Your task to perform on an android device: What's on the menu at Papa Murphy's? Image 0: 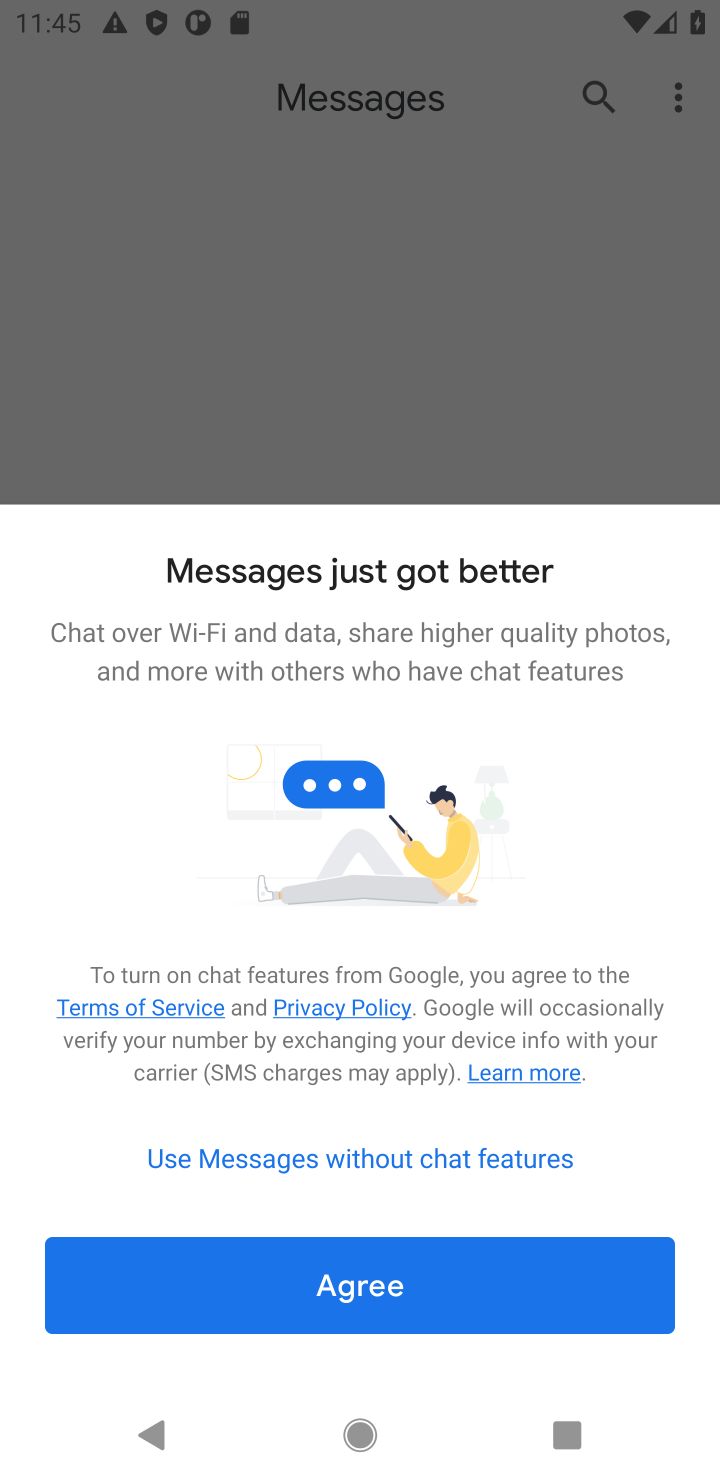
Step 0: press home button
Your task to perform on an android device: What's on the menu at Papa Murphy's? Image 1: 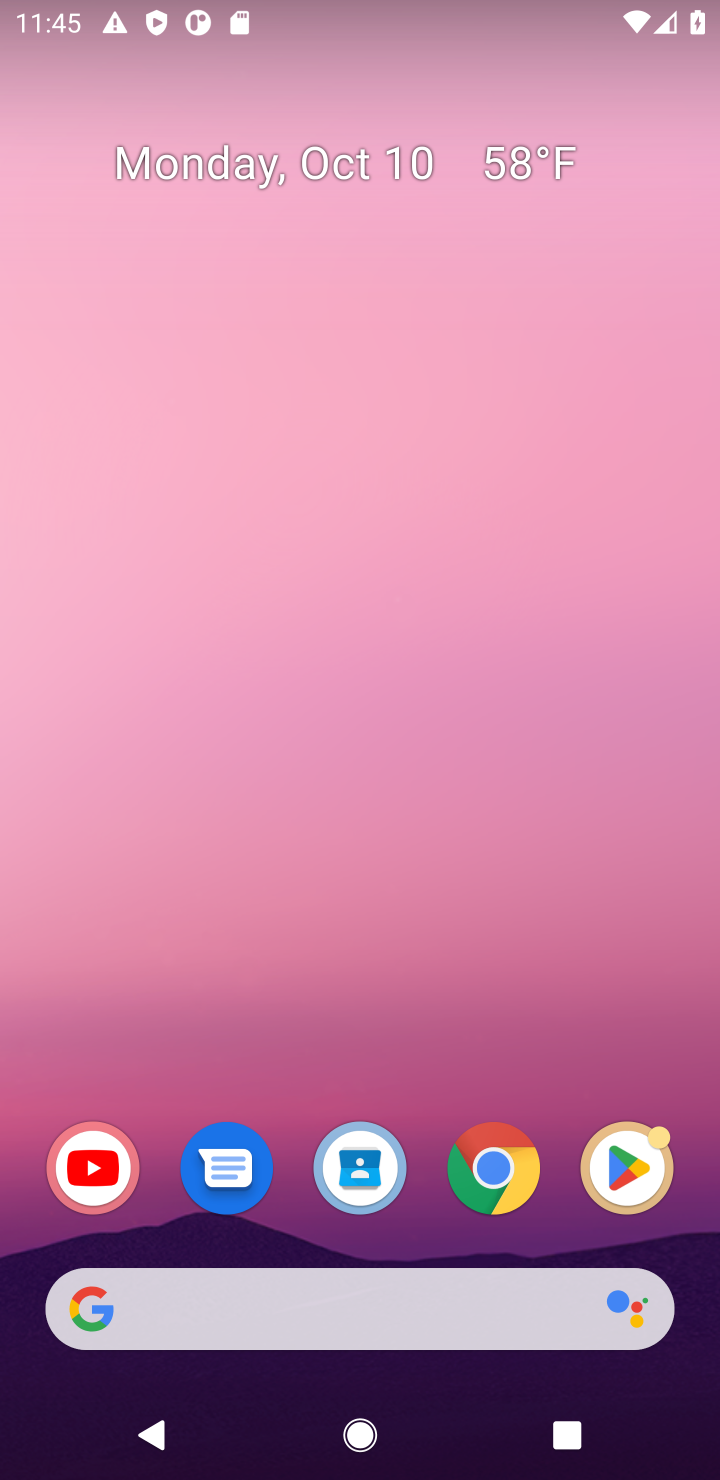
Step 1: click (309, 1293)
Your task to perform on an android device: What's on the menu at Papa Murphy's? Image 2: 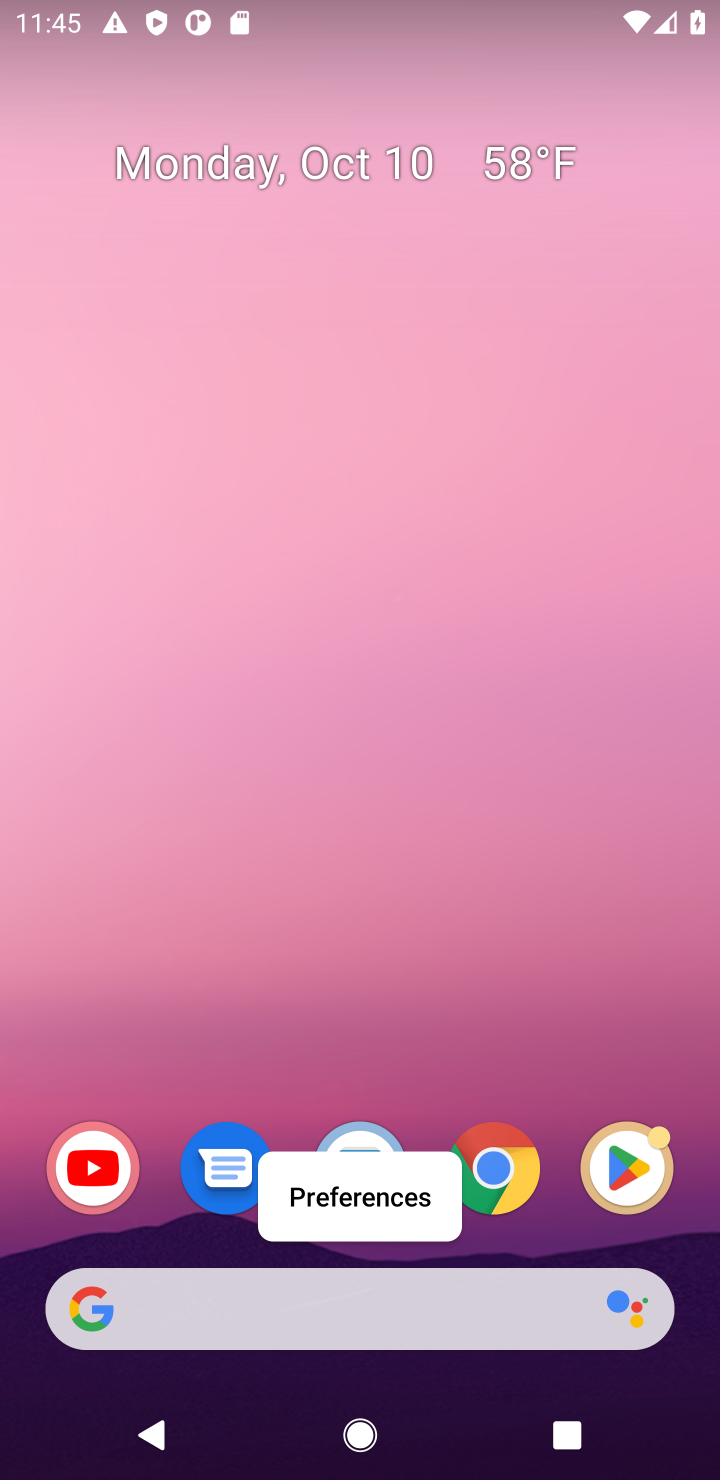
Step 2: click (311, 1293)
Your task to perform on an android device: What's on the menu at Papa Murphy's? Image 3: 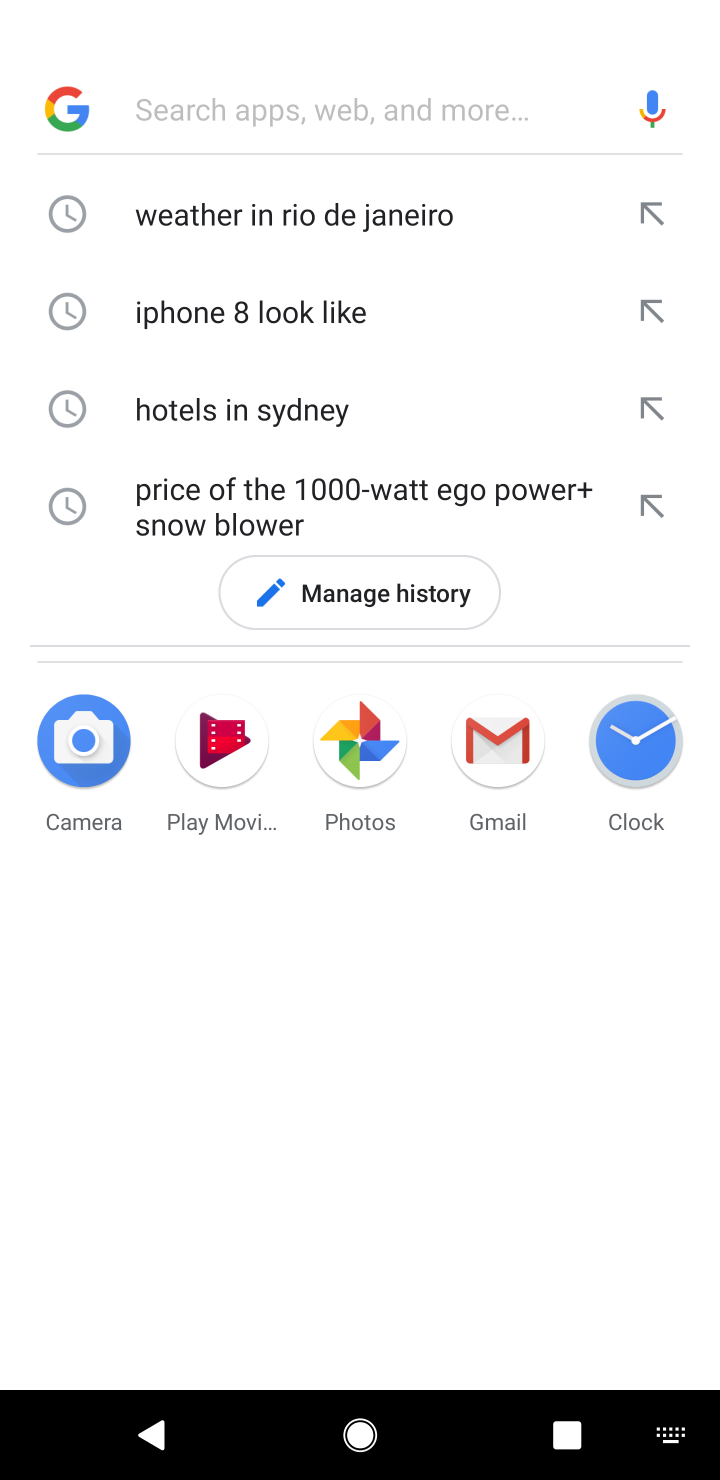
Step 3: type "menu at Papa Murphy's"
Your task to perform on an android device: What's on the menu at Papa Murphy's? Image 4: 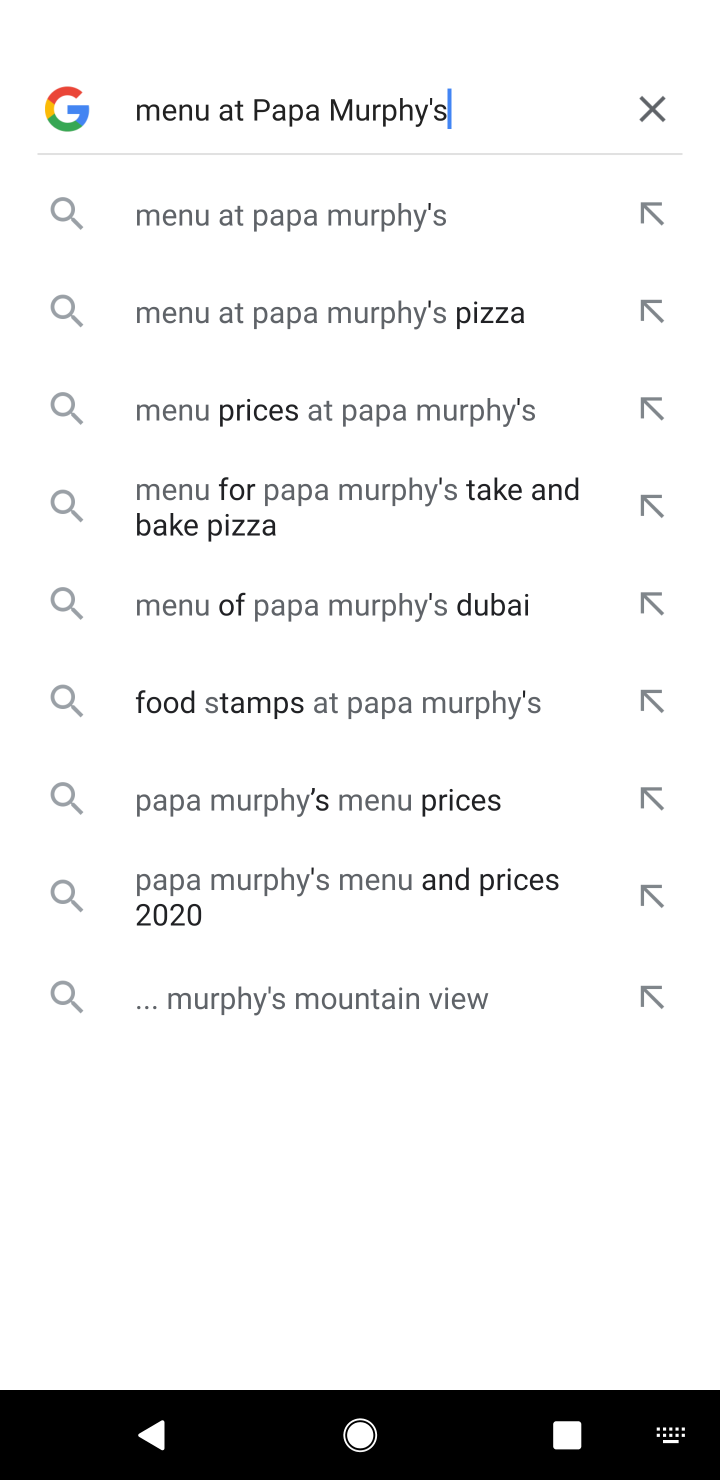
Step 4: type ""
Your task to perform on an android device: What's on the menu at Papa Murphy's? Image 5: 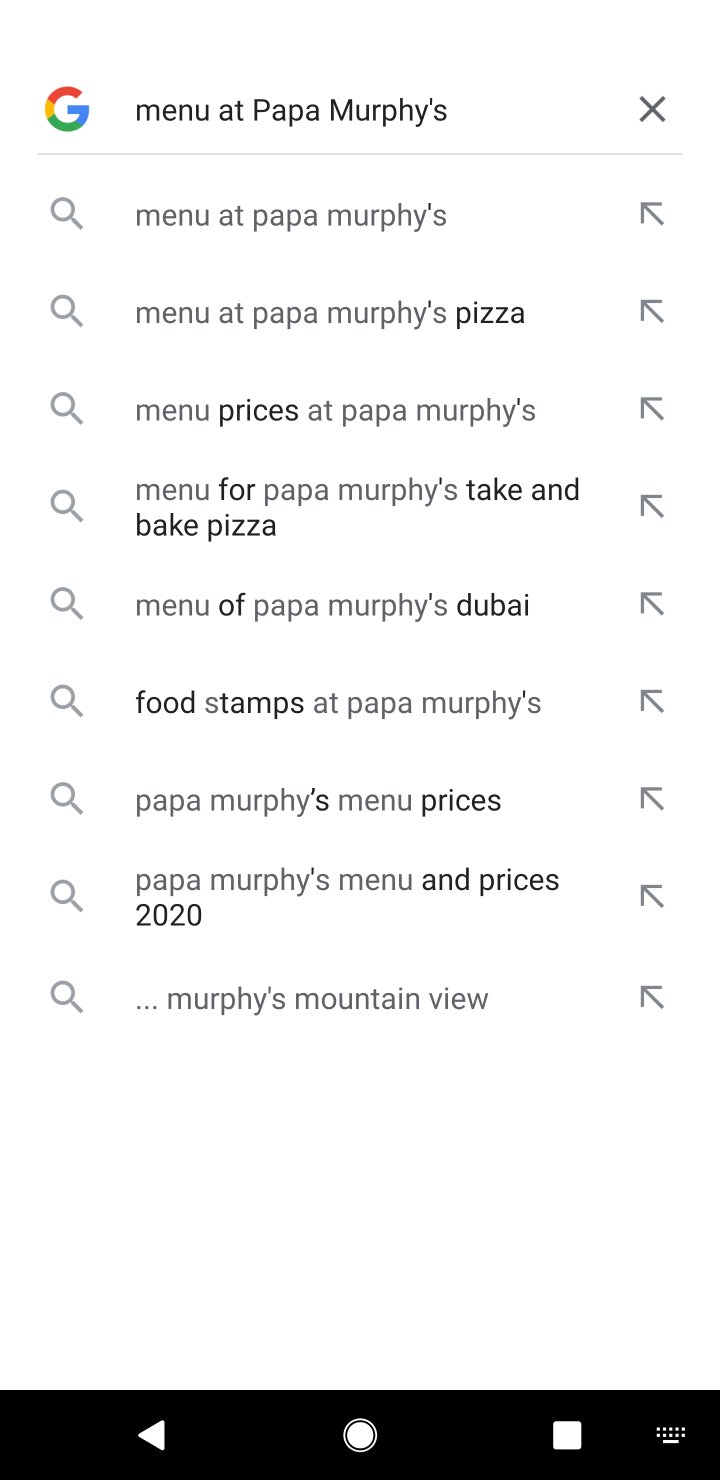
Step 5: click (267, 210)
Your task to perform on an android device: What's on the menu at Papa Murphy's? Image 6: 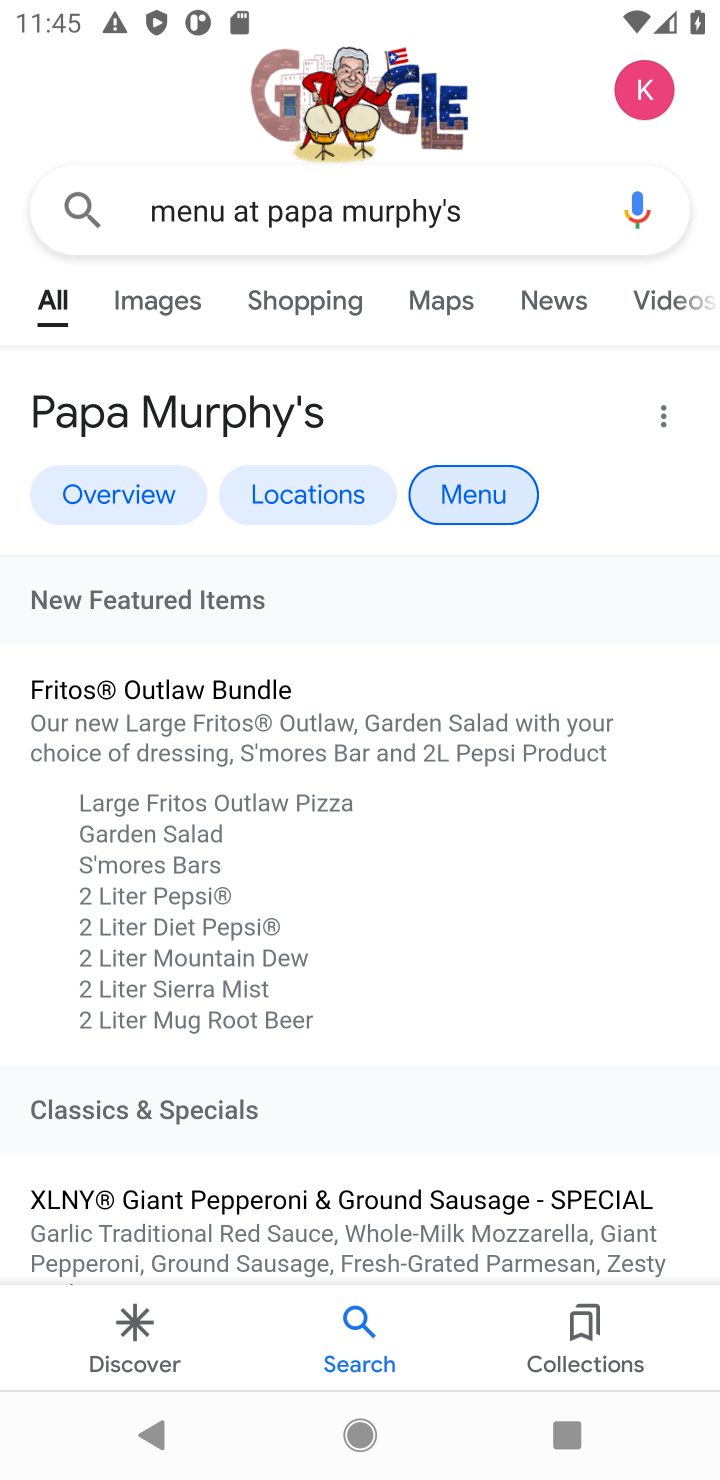
Step 6: task complete